Your task to perform on an android device: Open Youtube and go to "Your channel" Image 0: 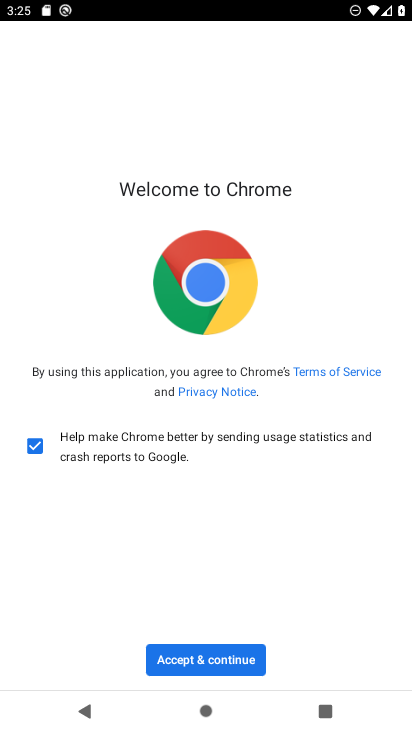
Step 0: click (183, 670)
Your task to perform on an android device: Open Youtube and go to "Your channel" Image 1: 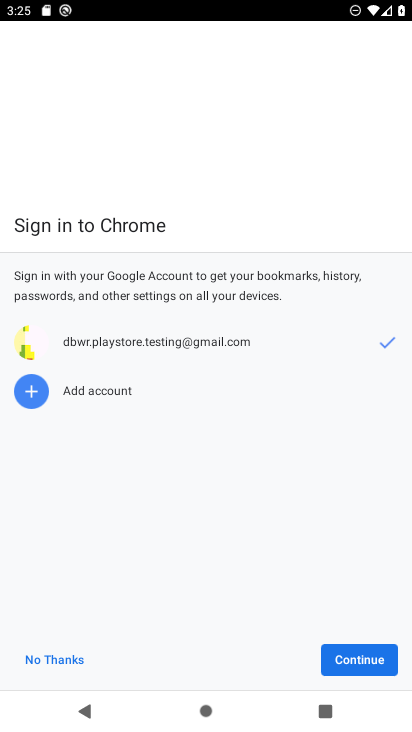
Step 1: click (346, 657)
Your task to perform on an android device: Open Youtube and go to "Your channel" Image 2: 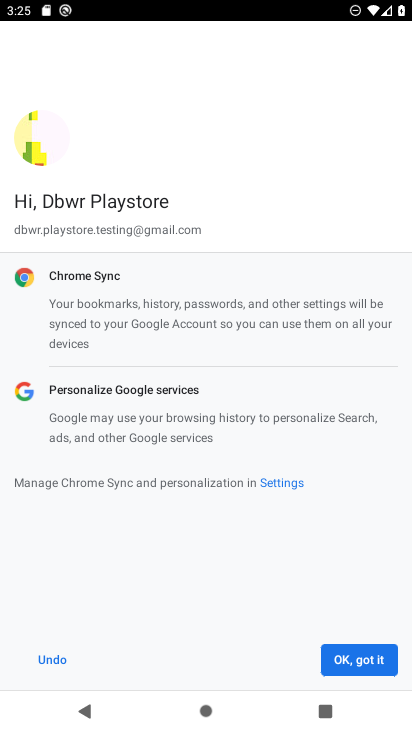
Step 2: click (346, 657)
Your task to perform on an android device: Open Youtube and go to "Your channel" Image 3: 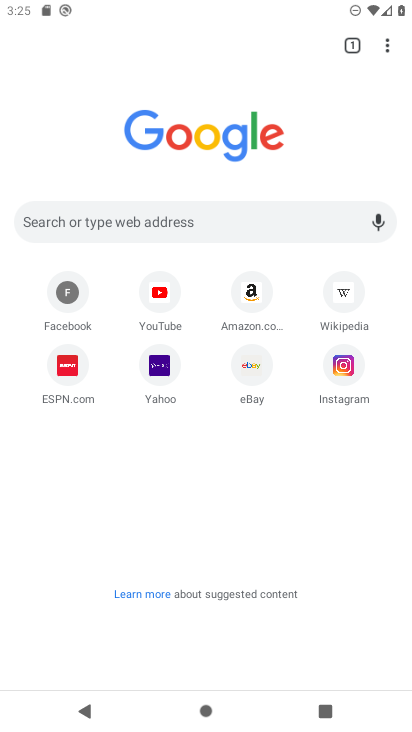
Step 3: press home button
Your task to perform on an android device: Open Youtube and go to "Your channel" Image 4: 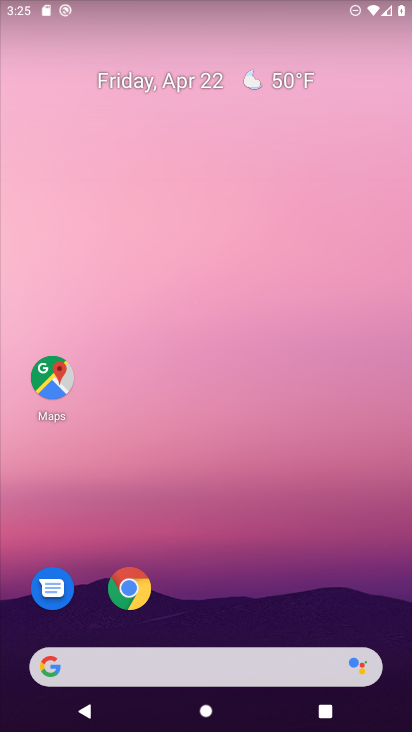
Step 4: drag from (198, 437) to (190, 12)
Your task to perform on an android device: Open Youtube and go to "Your channel" Image 5: 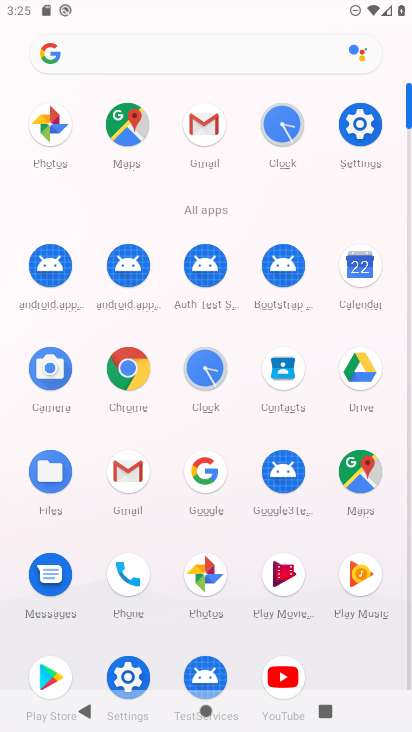
Step 5: click (288, 680)
Your task to perform on an android device: Open Youtube and go to "Your channel" Image 6: 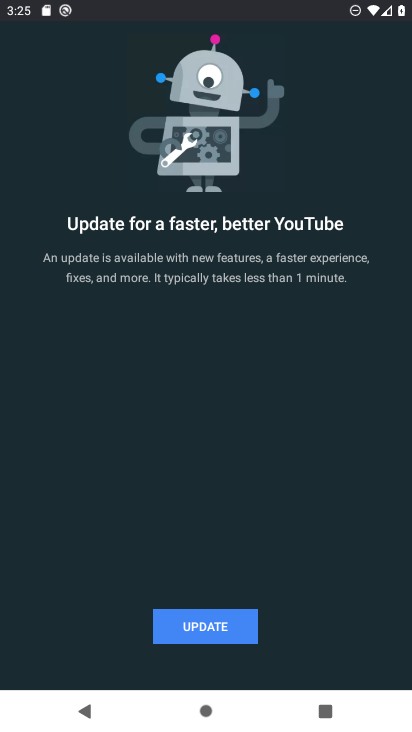
Step 6: click (197, 626)
Your task to perform on an android device: Open Youtube and go to "Your channel" Image 7: 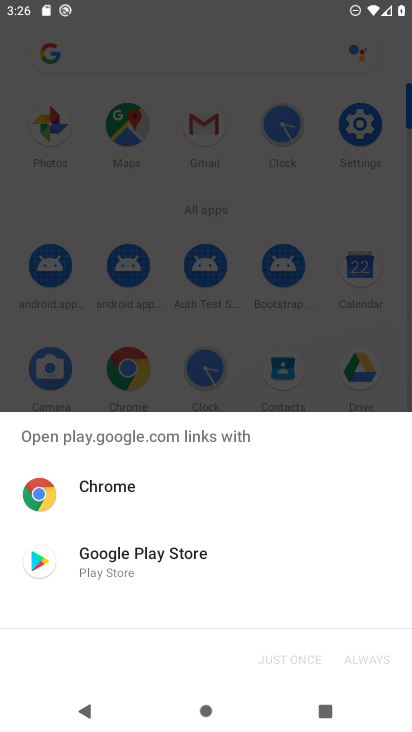
Step 7: click (171, 552)
Your task to perform on an android device: Open Youtube and go to "Your channel" Image 8: 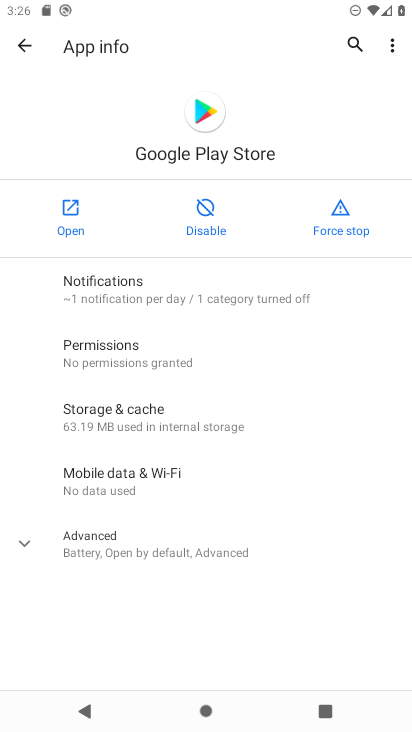
Step 8: click (20, 42)
Your task to perform on an android device: Open Youtube and go to "Your channel" Image 9: 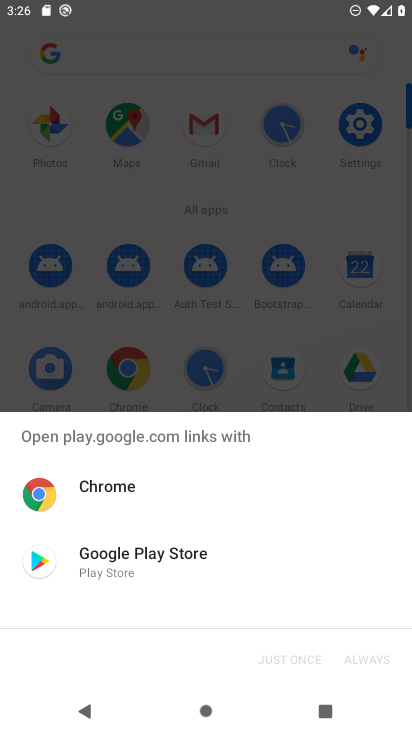
Step 9: click (134, 565)
Your task to perform on an android device: Open Youtube and go to "Your channel" Image 10: 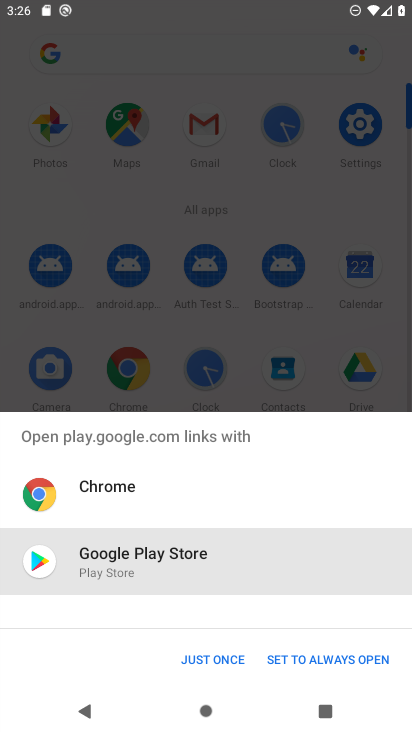
Step 10: click (189, 665)
Your task to perform on an android device: Open Youtube and go to "Your channel" Image 11: 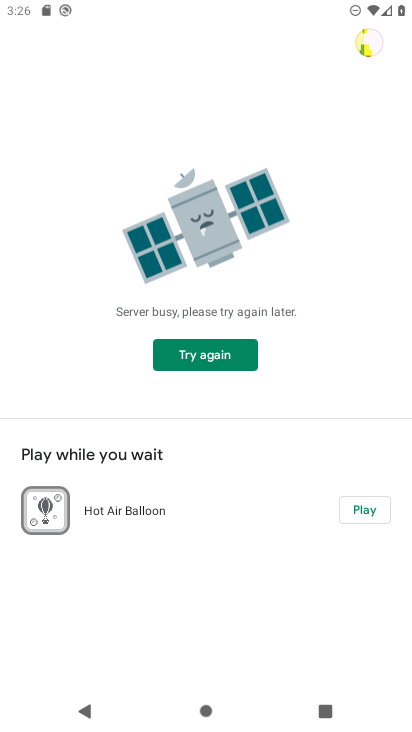
Step 11: task complete